Your task to perform on an android device: open device folders in google photos Image 0: 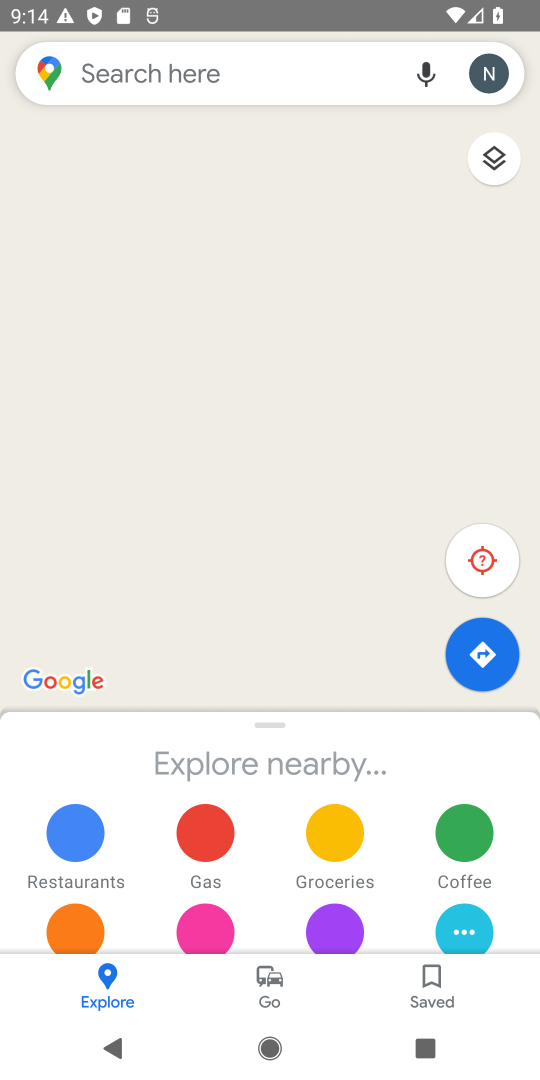
Step 0: press home button
Your task to perform on an android device: open device folders in google photos Image 1: 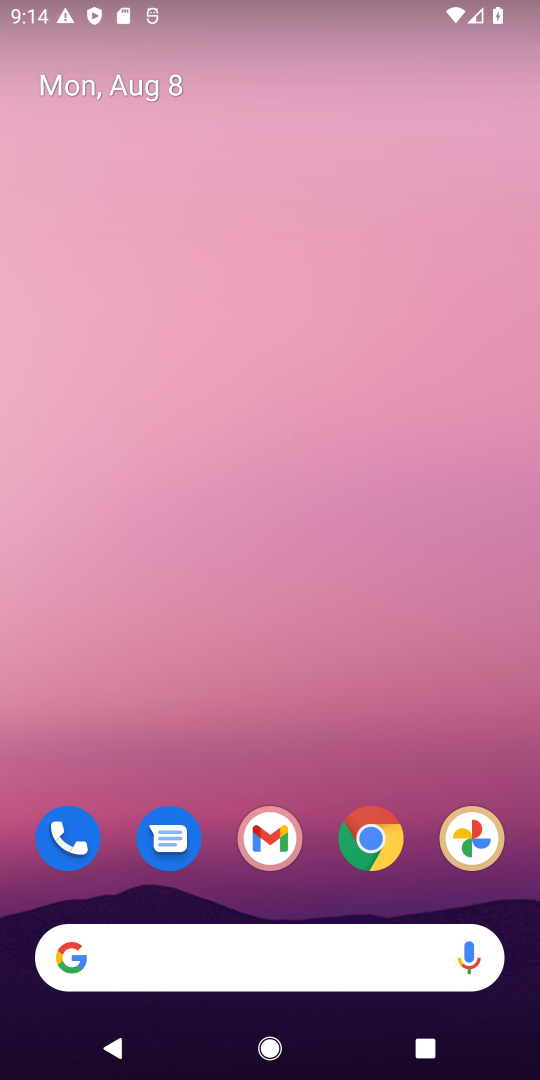
Step 1: click (465, 846)
Your task to perform on an android device: open device folders in google photos Image 2: 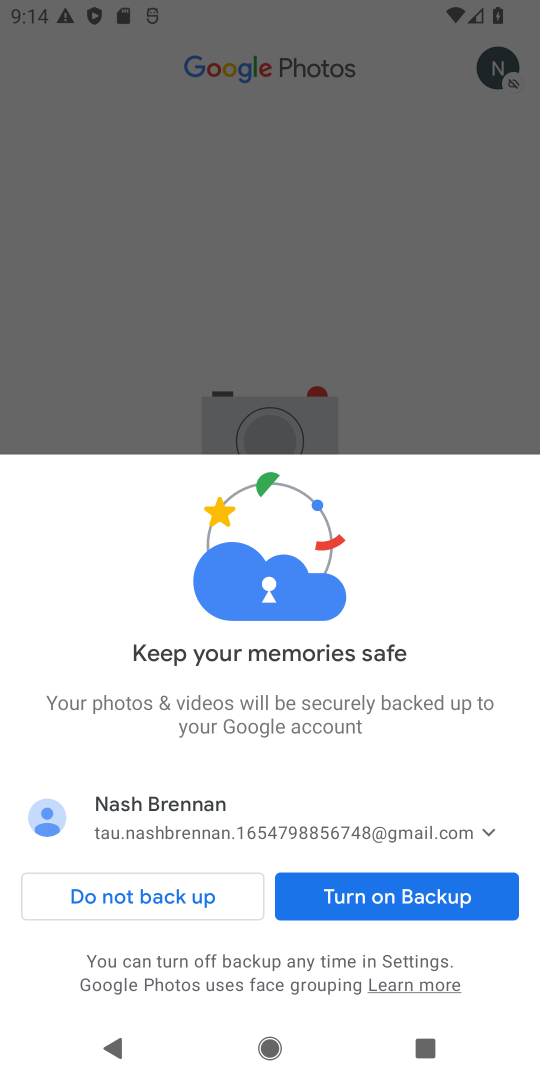
Step 2: click (188, 896)
Your task to perform on an android device: open device folders in google photos Image 3: 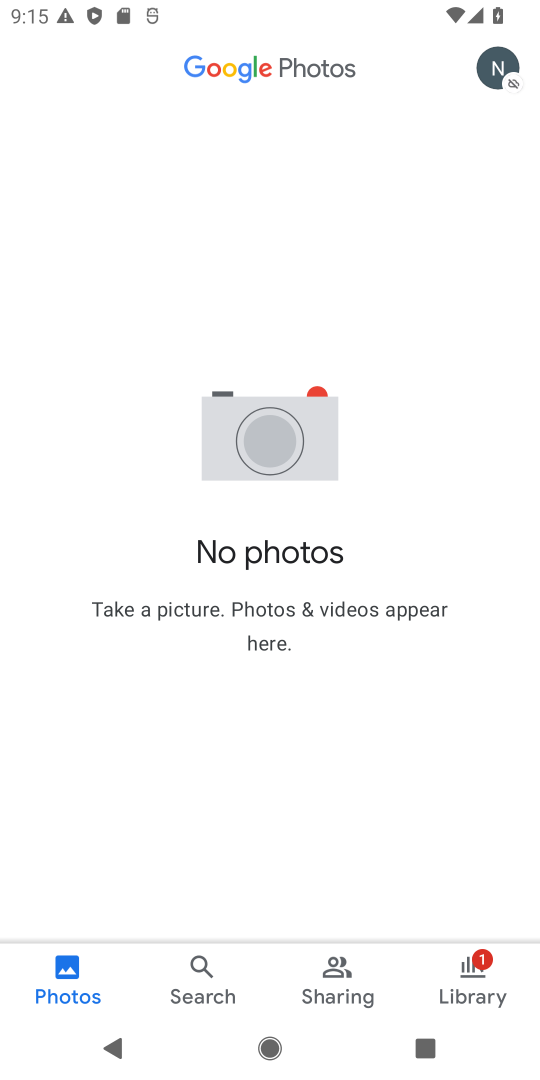
Step 3: click (504, 62)
Your task to perform on an android device: open device folders in google photos Image 4: 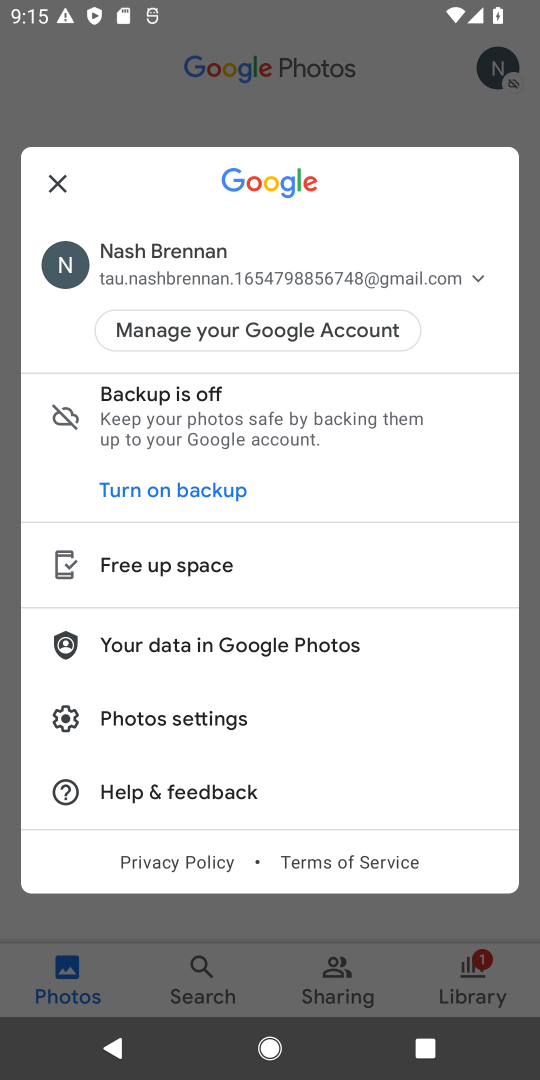
Step 4: task complete